Your task to perform on an android device: toggle show notifications on the lock screen Image 0: 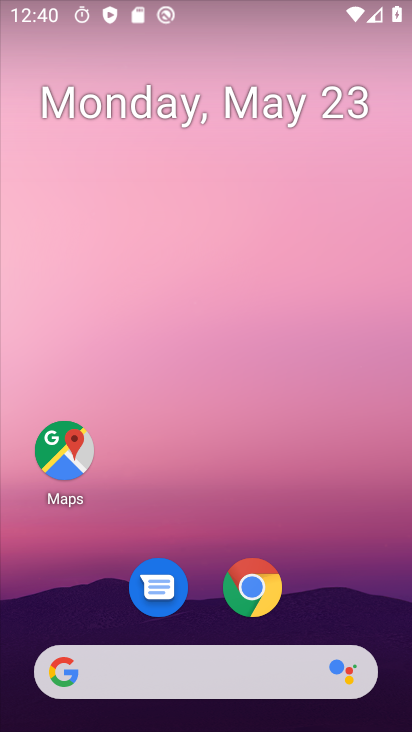
Step 0: drag from (150, 605) to (199, 150)
Your task to perform on an android device: toggle show notifications on the lock screen Image 1: 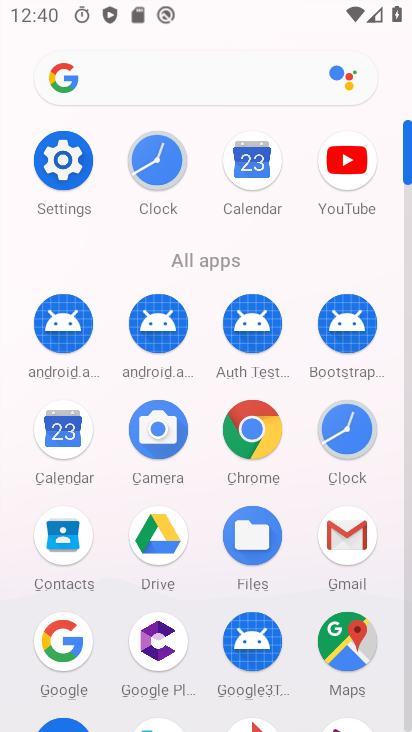
Step 1: click (74, 153)
Your task to perform on an android device: toggle show notifications on the lock screen Image 2: 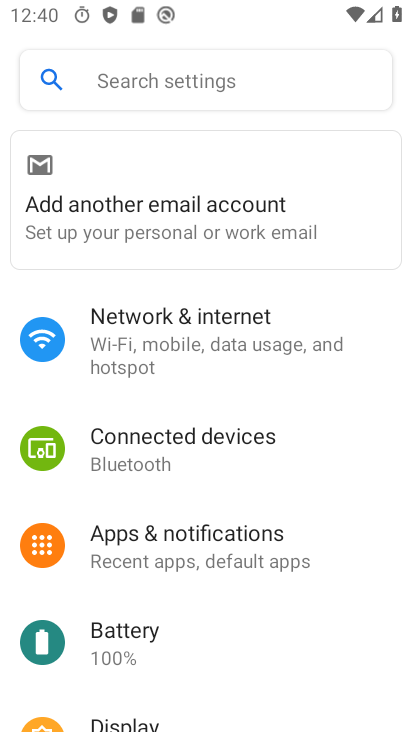
Step 2: click (210, 555)
Your task to perform on an android device: toggle show notifications on the lock screen Image 3: 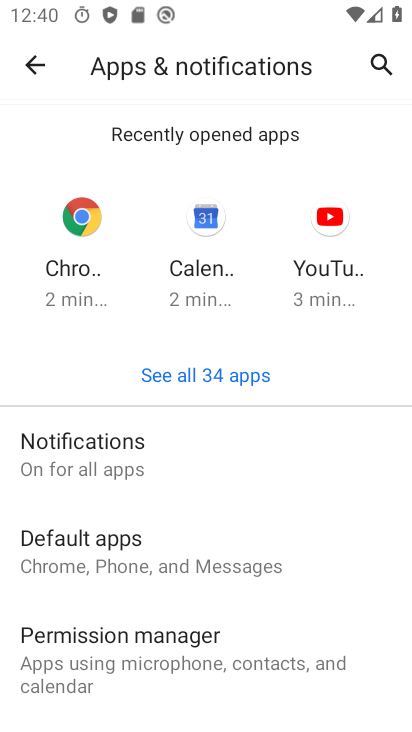
Step 3: click (204, 460)
Your task to perform on an android device: toggle show notifications on the lock screen Image 4: 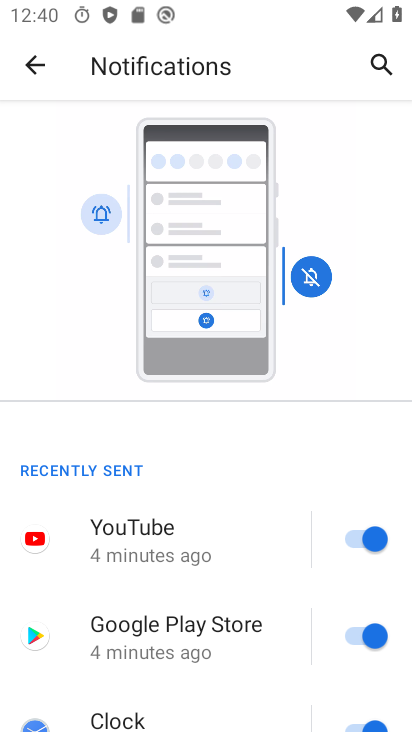
Step 4: drag from (196, 652) to (308, 50)
Your task to perform on an android device: toggle show notifications on the lock screen Image 5: 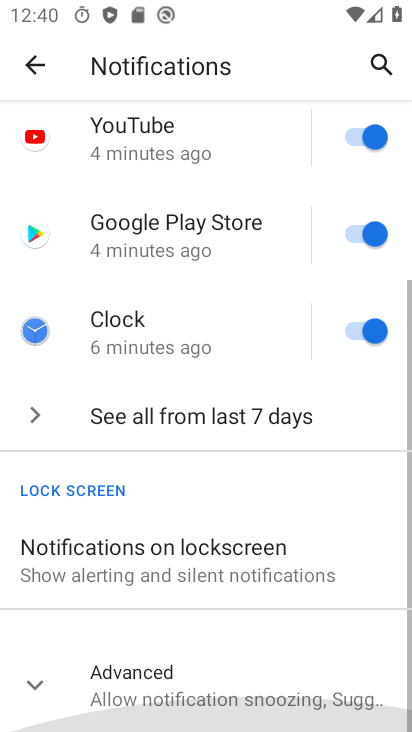
Step 5: click (187, 554)
Your task to perform on an android device: toggle show notifications on the lock screen Image 6: 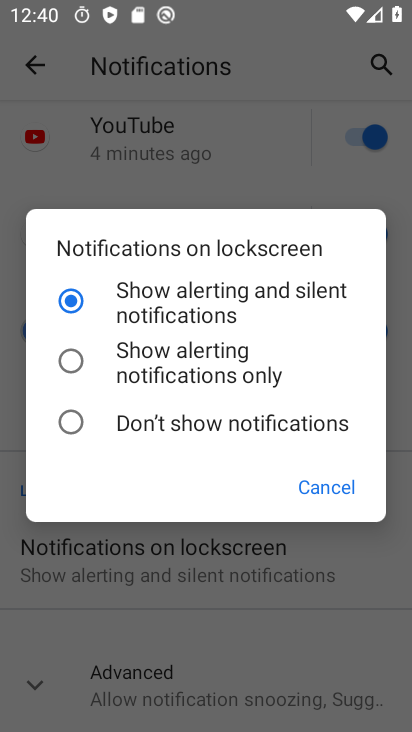
Step 6: click (77, 296)
Your task to perform on an android device: toggle show notifications on the lock screen Image 7: 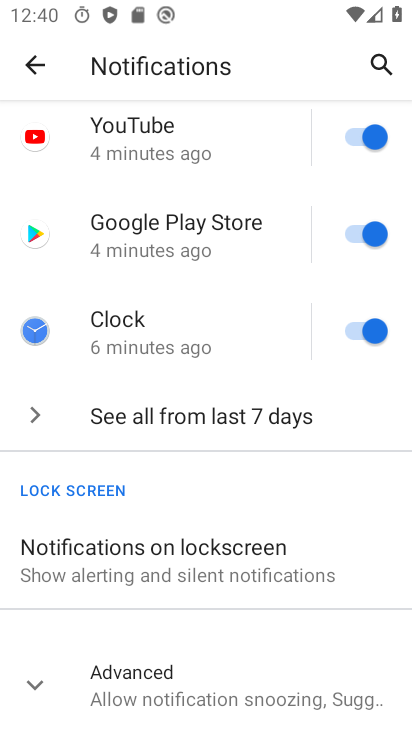
Step 7: task complete